Your task to perform on an android device: set the timer Image 0: 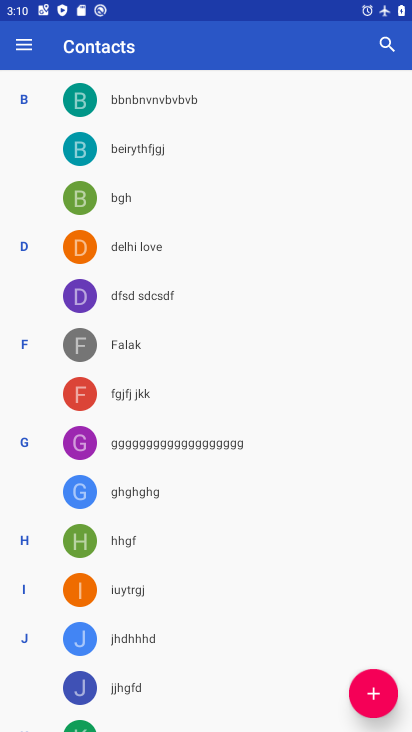
Step 0: task complete